Your task to perform on an android device: Go to internet settings Image 0: 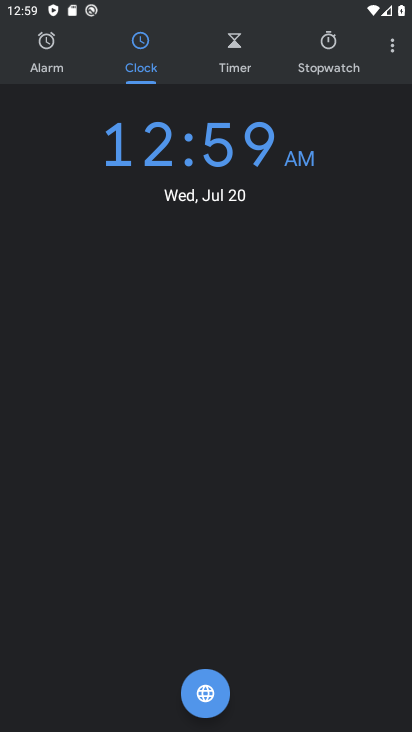
Step 0: press home button
Your task to perform on an android device: Go to internet settings Image 1: 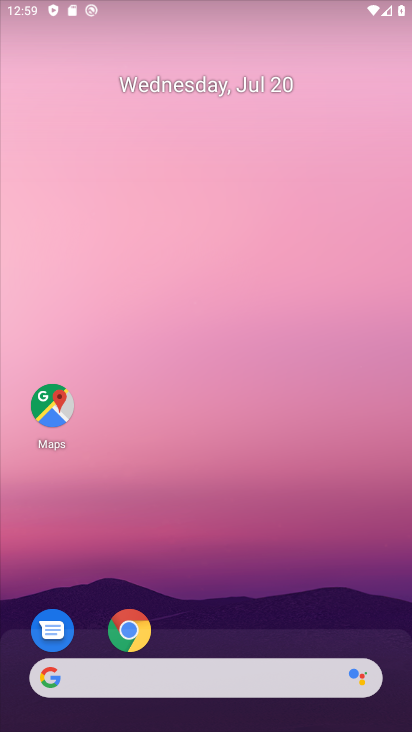
Step 1: drag from (278, 582) to (210, 77)
Your task to perform on an android device: Go to internet settings Image 2: 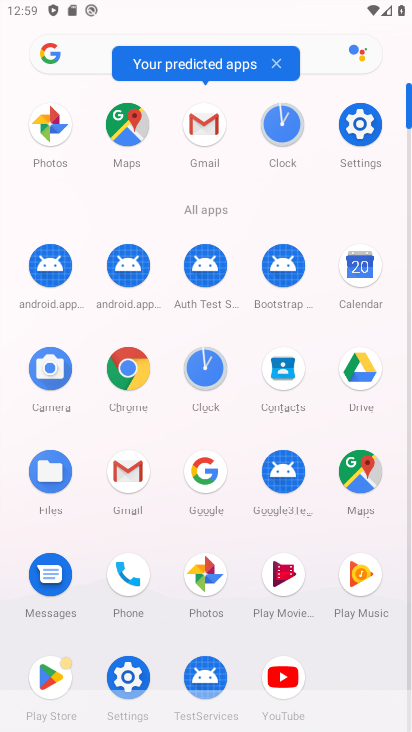
Step 2: click (367, 111)
Your task to perform on an android device: Go to internet settings Image 3: 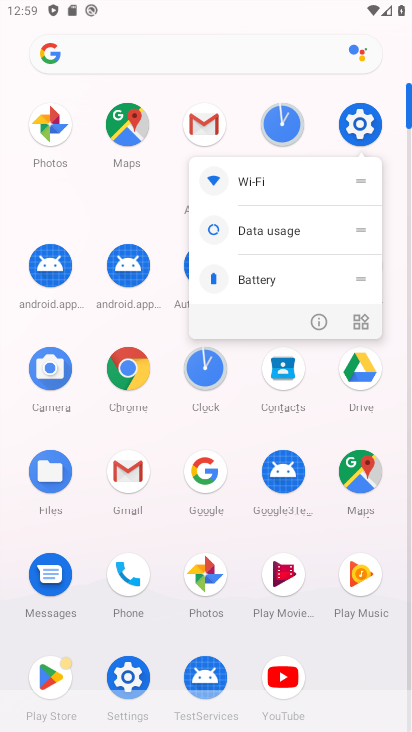
Step 3: click (364, 116)
Your task to perform on an android device: Go to internet settings Image 4: 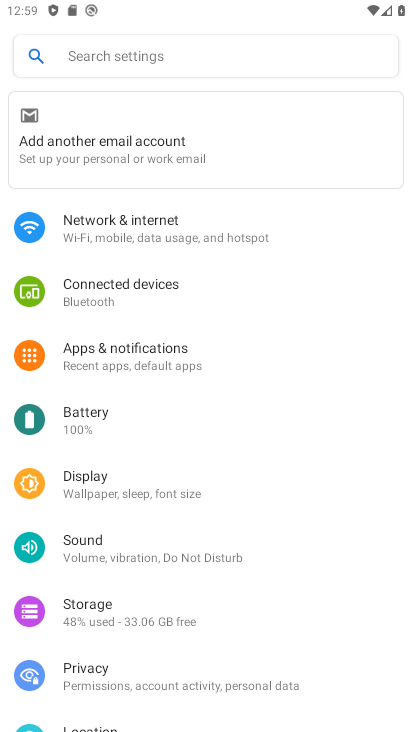
Step 4: click (129, 213)
Your task to perform on an android device: Go to internet settings Image 5: 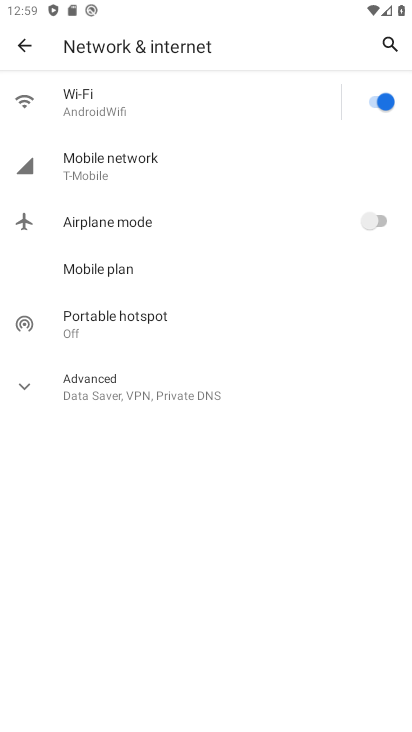
Step 5: click (139, 377)
Your task to perform on an android device: Go to internet settings Image 6: 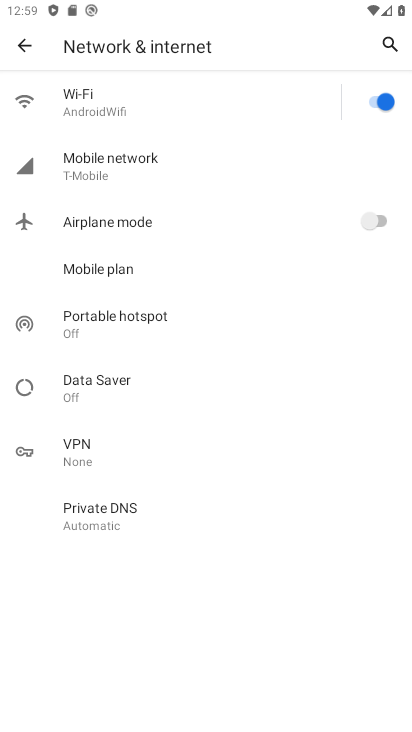
Step 6: task complete